Your task to perform on an android device: turn off smart reply in the gmail app Image 0: 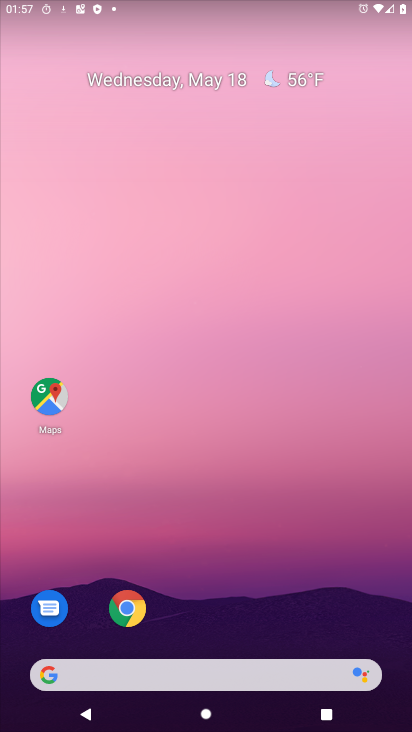
Step 0: drag from (276, 612) to (323, 158)
Your task to perform on an android device: turn off smart reply in the gmail app Image 1: 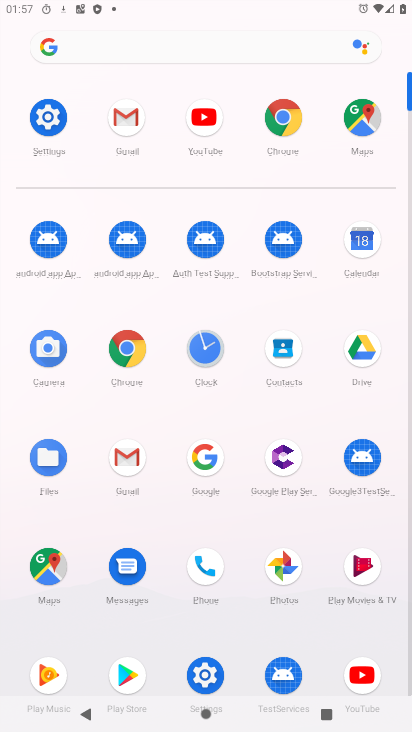
Step 1: click (132, 462)
Your task to perform on an android device: turn off smart reply in the gmail app Image 2: 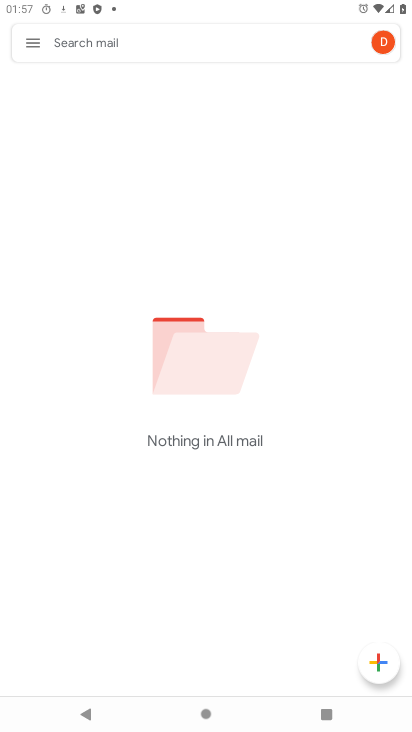
Step 2: click (33, 46)
Your task to perform on an android device: turn off smart reply in the gmail app Image 3: 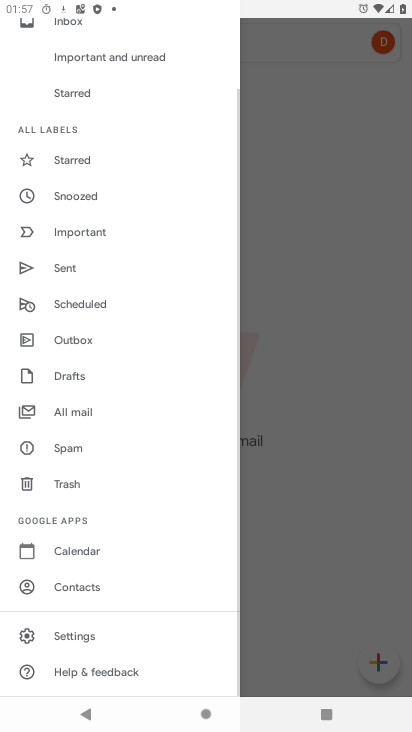
Step 3: click (105, 634)
Your task to perform on an android device: turn off smart reply in the gmail app Image 4: 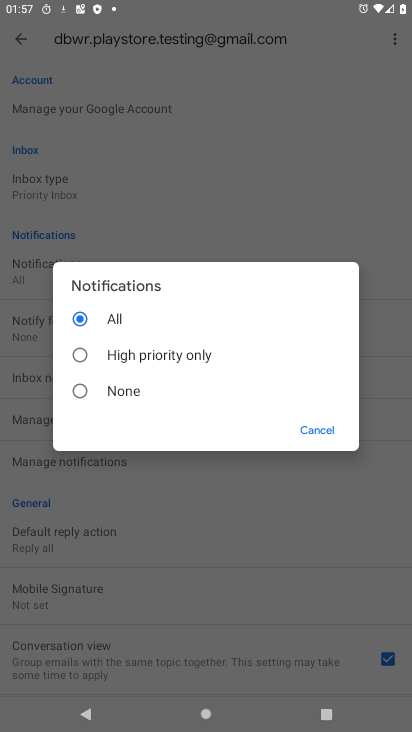
Step 4: click (333, 429)
Your task to perform on an android device: turn off smart reply in the gmail app Image 5: 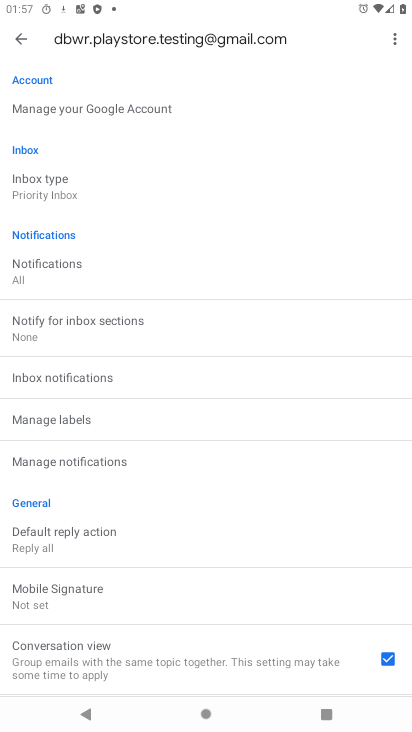
Step 5: drag from (122, 586) to (137, 446)
Your task to perform on an android device: turn off smart reply in the gmail app Image 6: 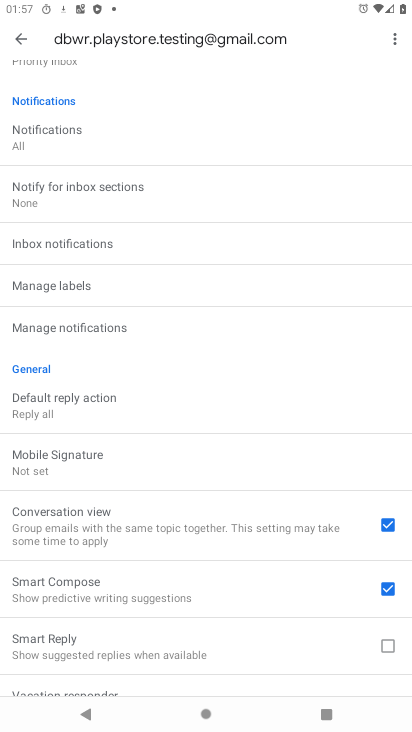
Step 6: click (158, 641)
Your task to perform on an android device: turn off smart reply in the gmail app Image 7: 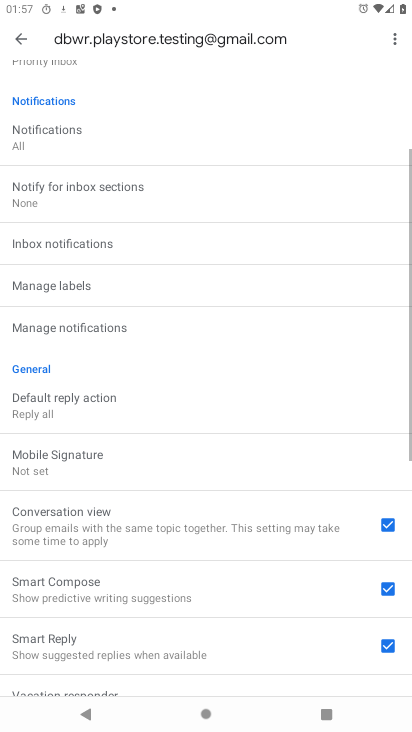
Step 7: click (158, 641)
Your task to perform on an android device: turn off smart reply in the gmail app Image 8: 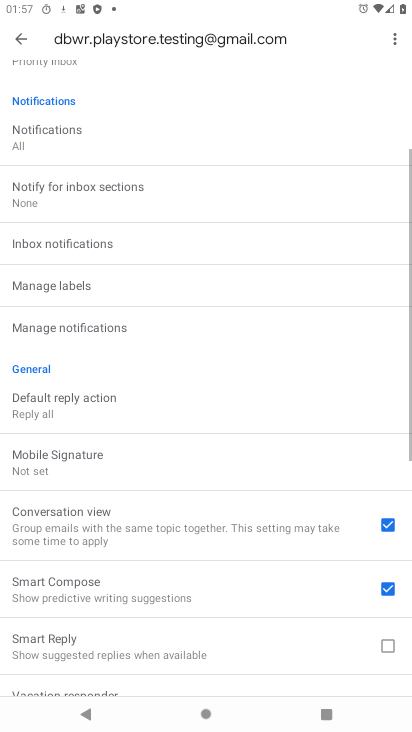
Step 8: task complete